Your task to perform on an android device: turn on showing notifications on the lock screen Image 0: 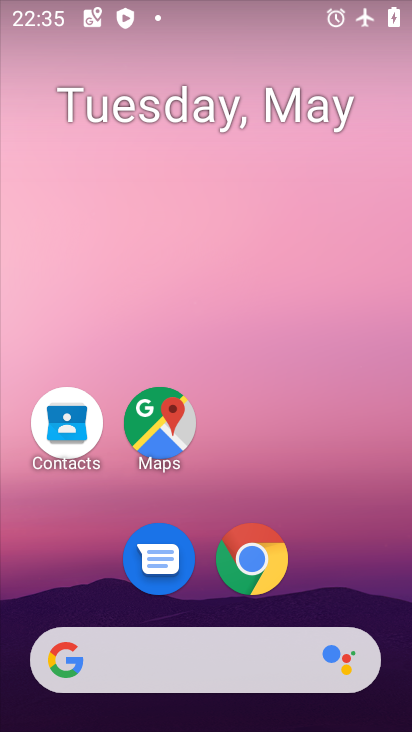
Step 0: drag from (361, 549) to (298, 151)
Your task to perform on an android device: turn on showing notifications on the lock screen Image 1: 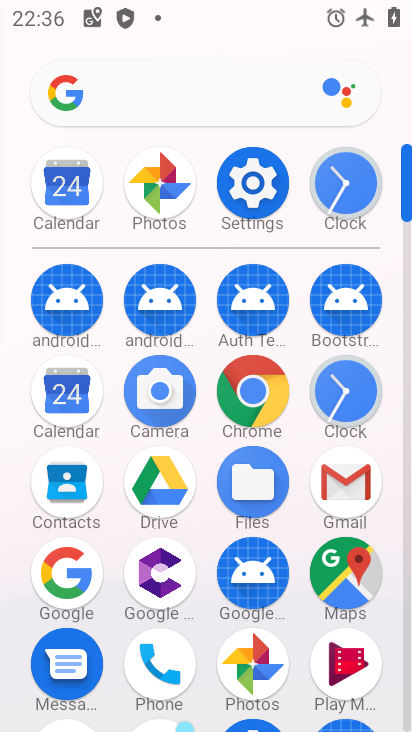
Step 1: click (248, 182)
Your task to perform on an android device: turn on showing notifications on the lock screen Image 2: 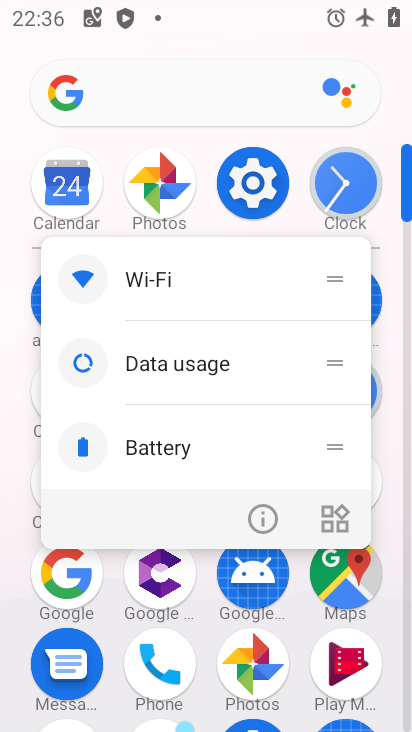
Step 2: click (247, 191)
Your task to perform on an android device: turn on showing notifications on the lock screen Image 3: 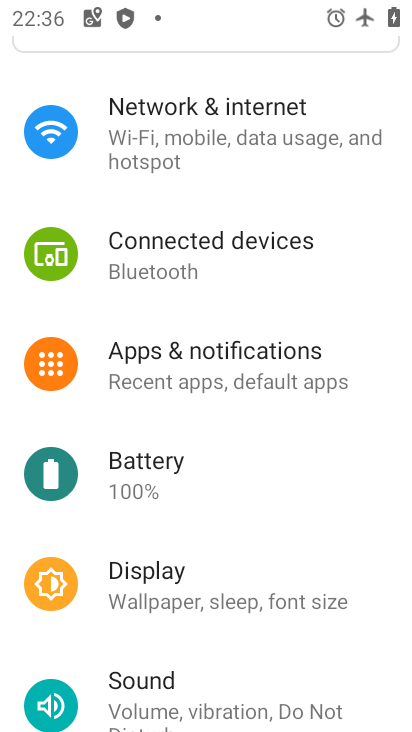
Step 3: drag from (228, 667) to (224, 423)
Your task to perform on an android device: turn on showing notifications on the lock screen Image 4: 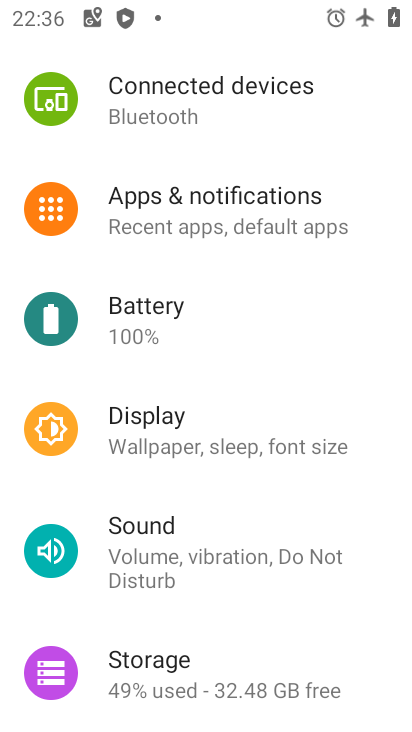
Step 4: click (287, 230)
Your task to perform on an android device: turn on showing notifications on the lock screen Image 5: 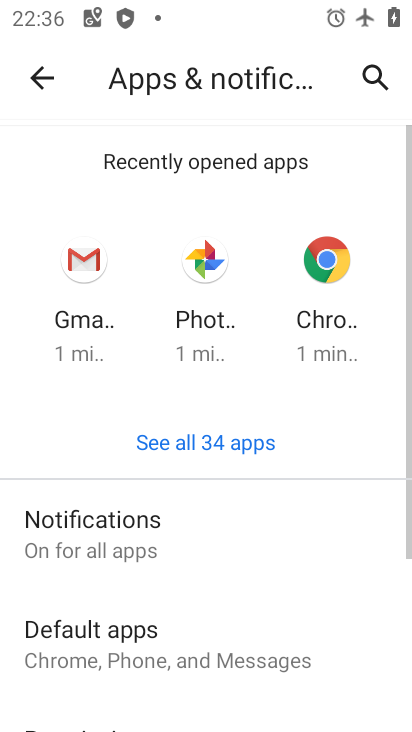
Step 5: drag from (254, 591) to (337, 195)
Your task to perform on an android device: turn on showing notifications on the lock screen Image 6: 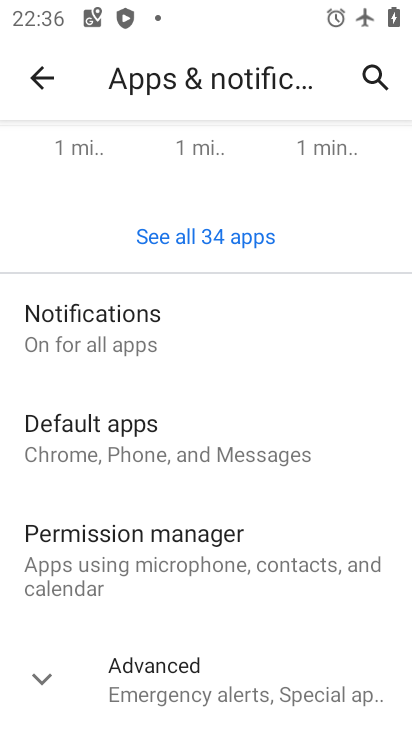
Step 6: click (245, 295)
Your task to perform on an android device: turn on showing notifications on the lock screen Image 7: 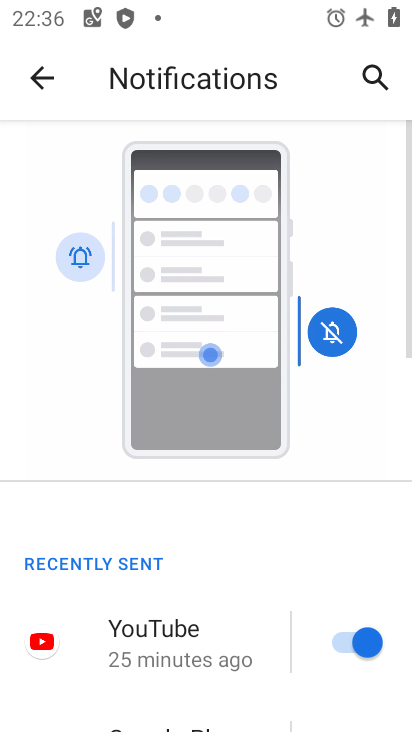
Step 7: drag from (268, 716) to (276, 335)
Your task to perform on an android device: turn on showing notifications on the lock screen Image 8: 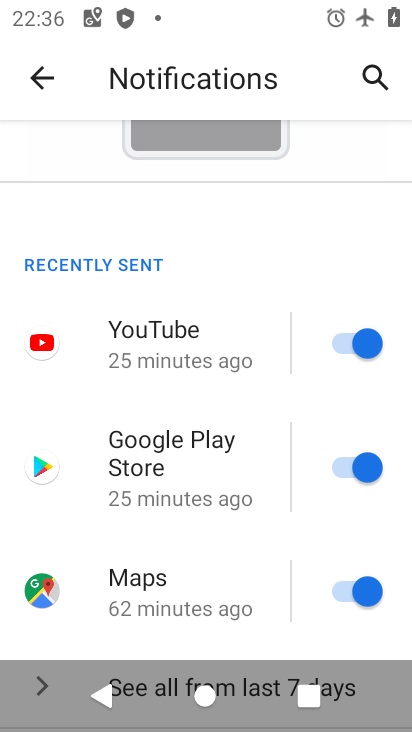
Step 8: drag from (240, 582) to (249, 278)
Your task to perform on an android device: turn on showing notifications on the lock screen Image 9: 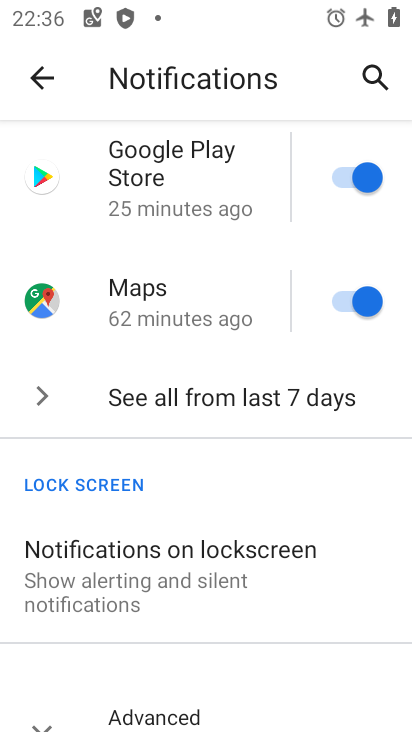
Step 9: drag from (245, 543) to (272, 271)
Your task to perform on an android device: turn on showing notifications on the lock screen Image 10: 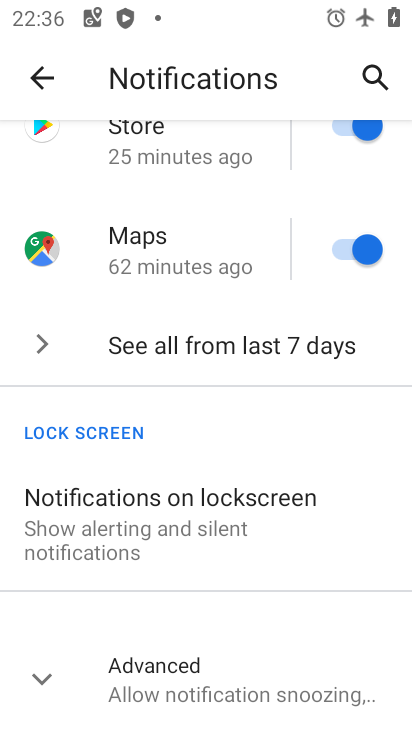
Step 10: click (237, 648)
Your task to perform on an android device: turn on showing notifications on the lock screen Image 11: 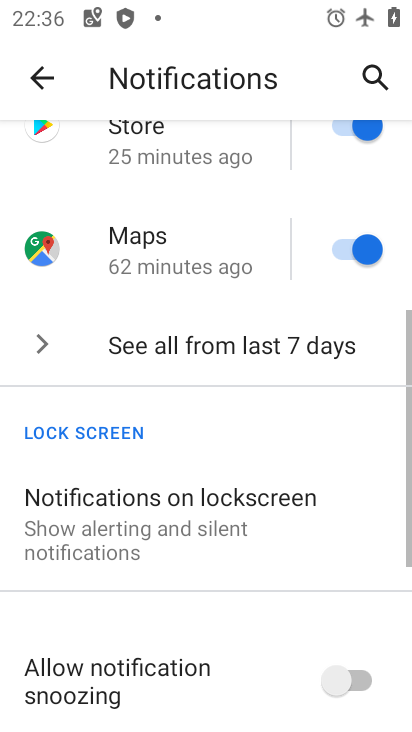
Step 11: drag from (250, 618) to (245, 428)
Your task to perform on an android device: turn on showing notifications on the lock screen Image 12: 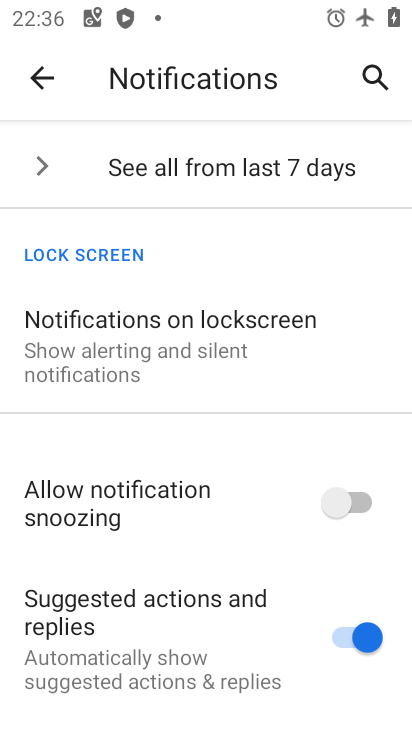
Step 12: click (190, 390)
Your task to perform on an android device: turn on showing notifications on the lock screen Image 13: 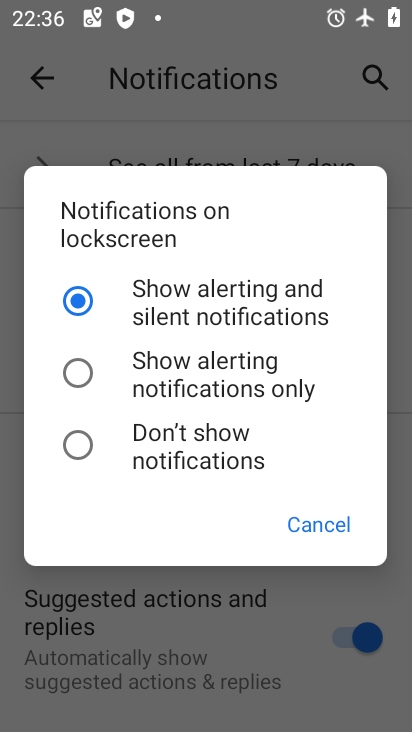
Step 13: task complete